Your task to perform on an android device: Clear all items from cart on bestbuy. Image 0: 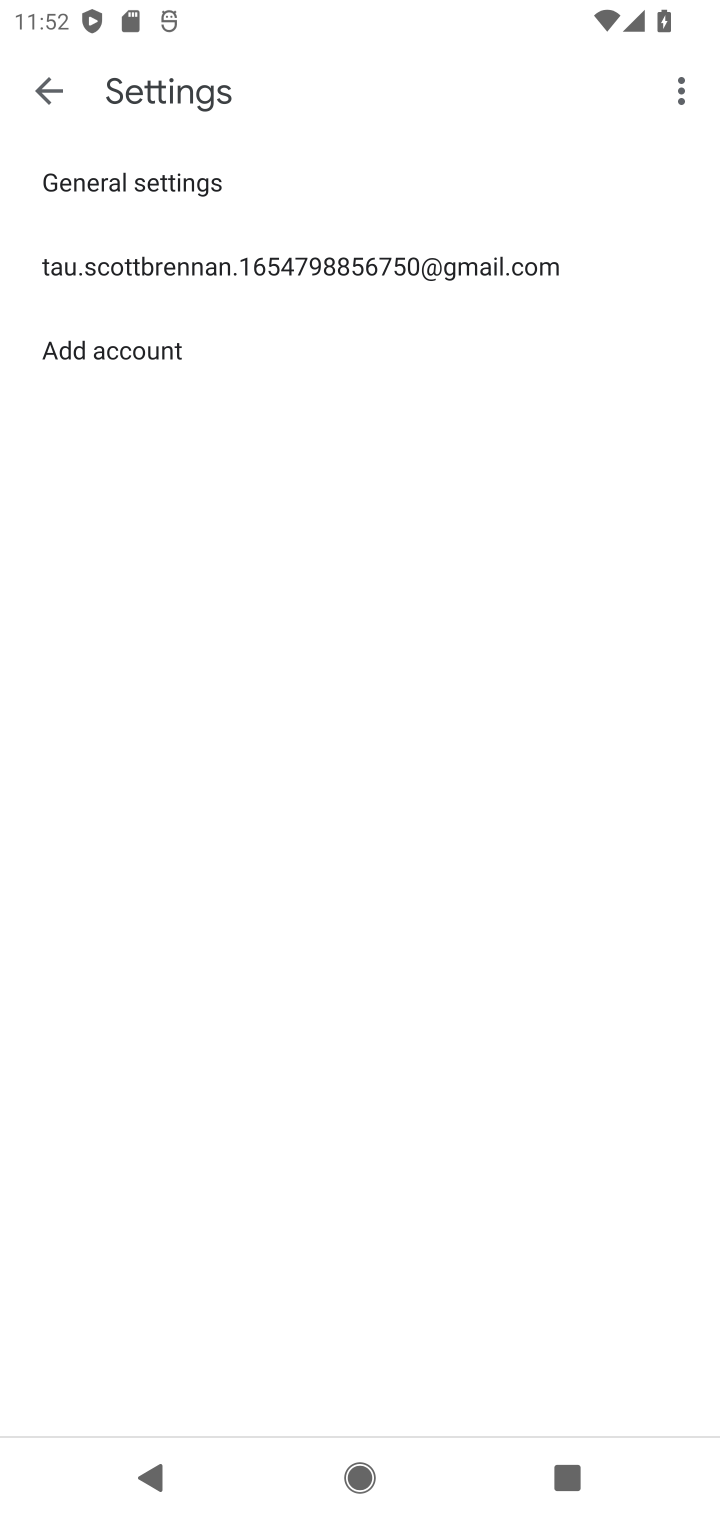
Step 0: task complete